Your task to perform on an android device: Go to accessibility settings Image 0: 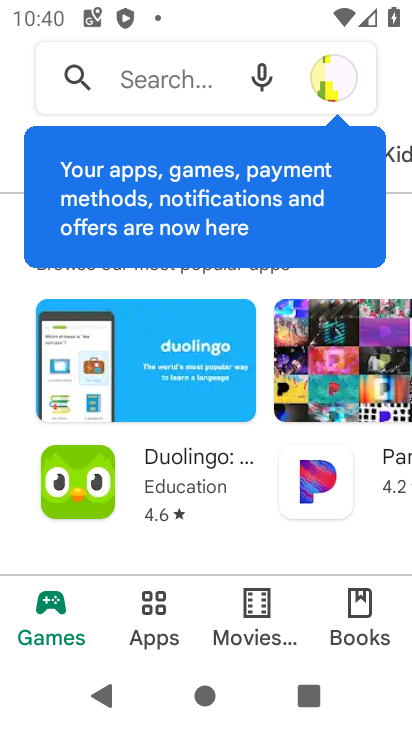
Step 0: press back button
Your task to perform on an android device: Go to accessibility settings Image 1: 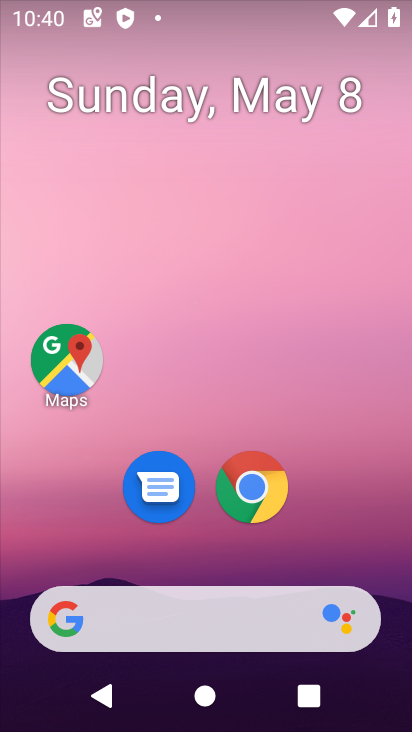
Step 1: drag from (140, 548) to (223, 0)
Your task to perform on an android device: Go to accessibility settings Image 2: 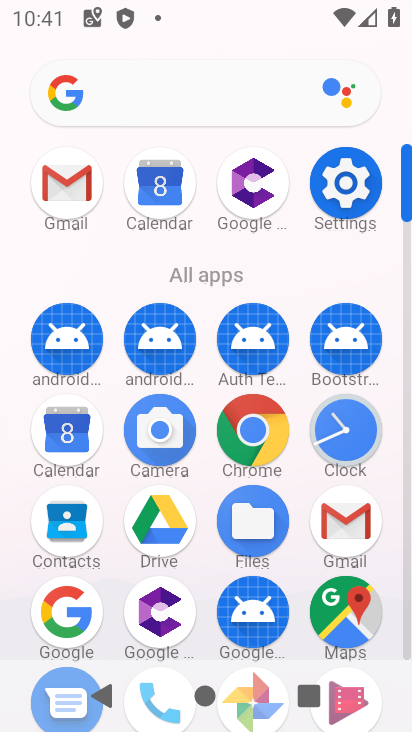
Step 2: click (359, 163)
Your task to perform on an android device: Go to accessibility settings Image 3: 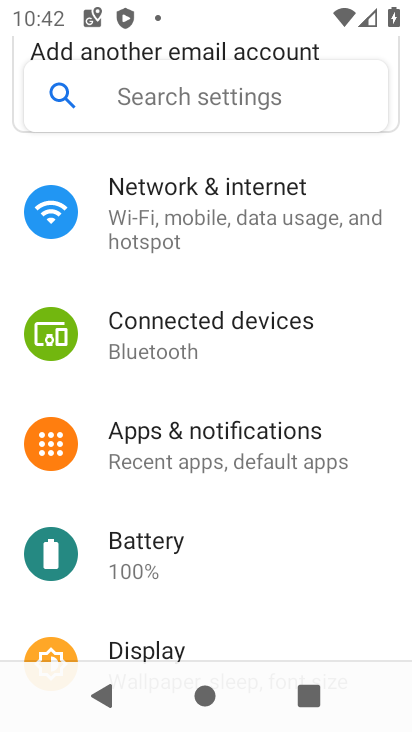
Step 3: drag from (171, 646) to (294, 71)
Your task to perform on an android device: Go to accessibility settings Image 4: 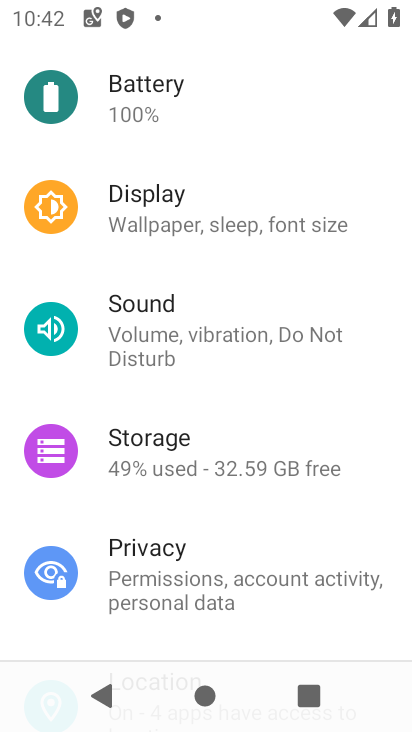
Step 4: drag from (204, 582) to (327, 32)
Your task to perform on an android device: Go to accessibility settings Image 5: 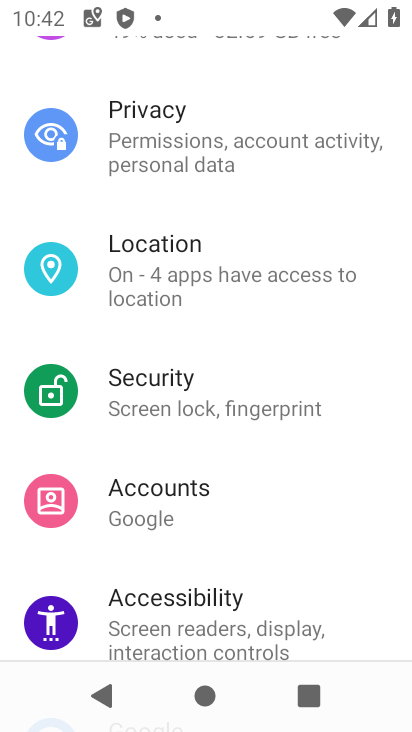
Step 5: click (177, 615)
Your task to perform on an android device: Go to accessibility settings Image 6: 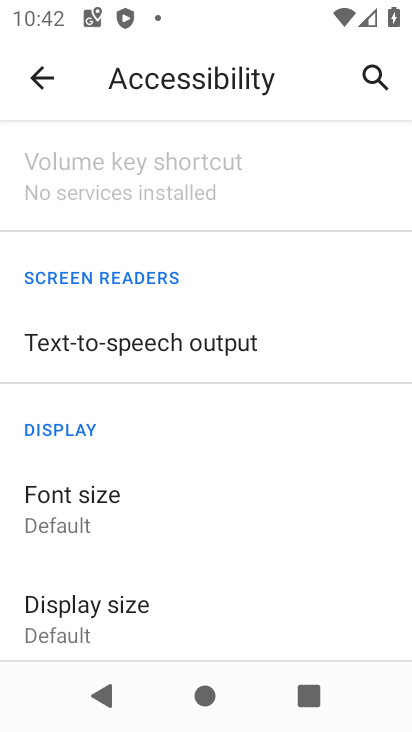
Step 6: task complete